Your task to perform on an android device: Go to Google Image 0: 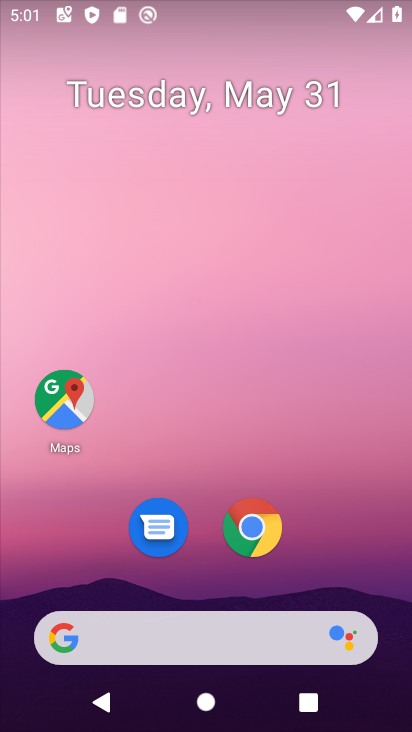
Step 0: drag from (288, 548) to (360, 101)
Your task to perform on an android device: Go to Google Image 1: 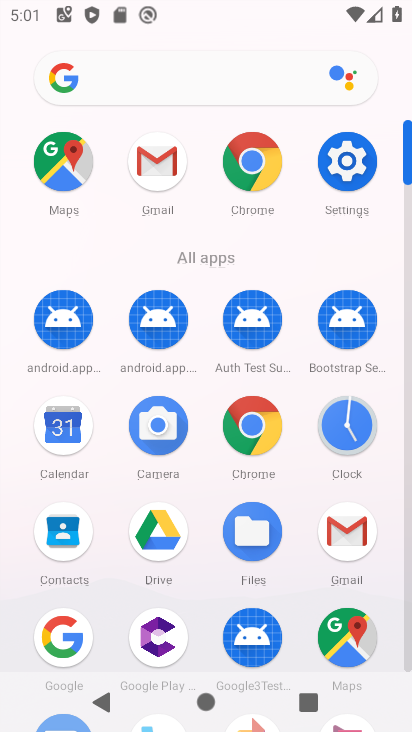
Step 1: click (57, 626)
Your task to perform on an android device: Go to Google Image 2: 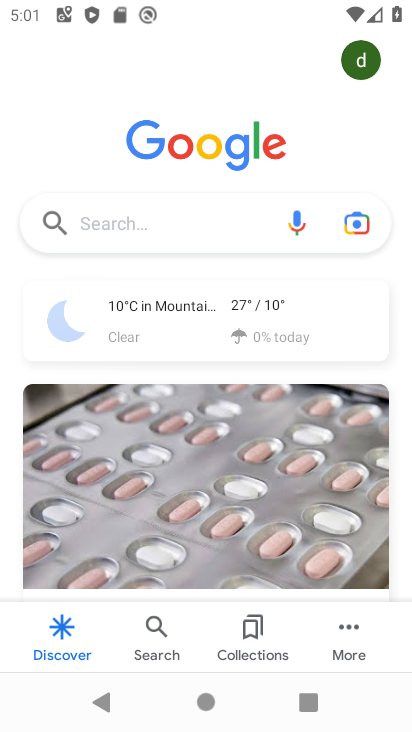
Step 2: task complete